Your task to perform on an android device: turn off location history Image 0: 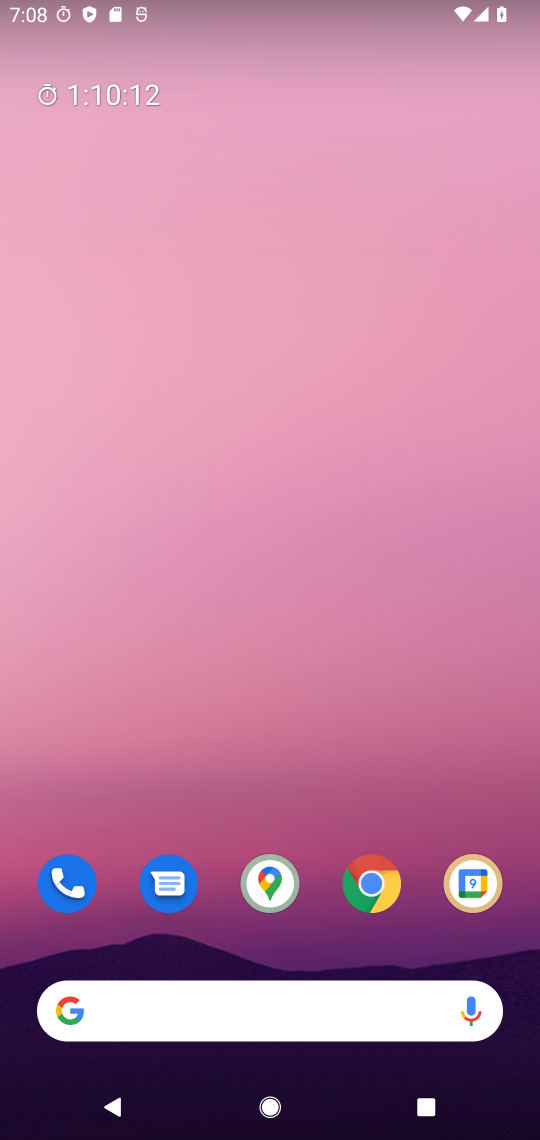
Step 0: drag from (282, 799) to (286, 269)
Your task to perform on an android device: turn off location history Image 1: 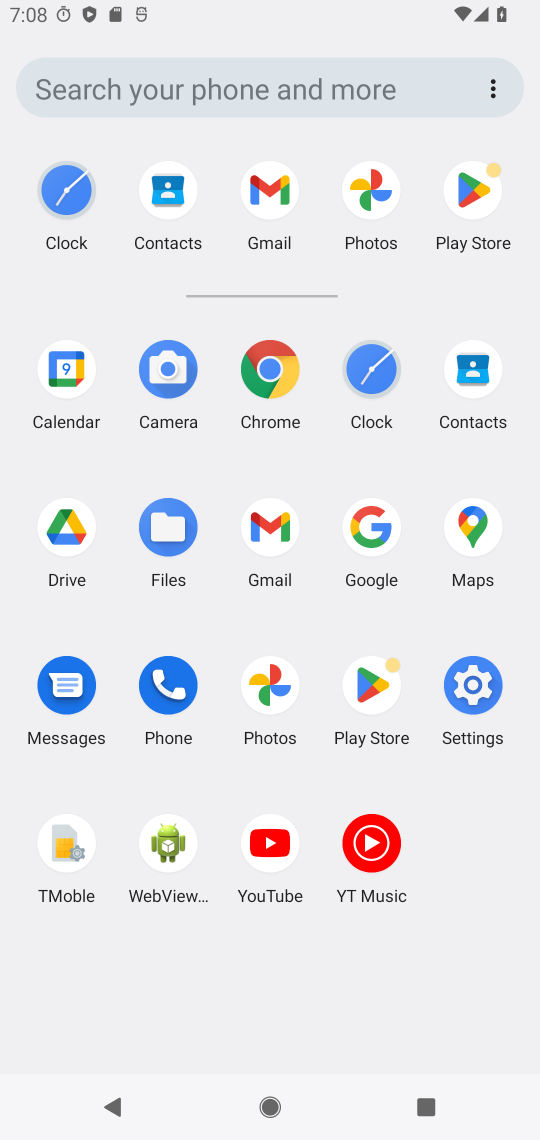
Step 1: click (458, 697)
Your task to perform on an android device: turn off location history Image 2: 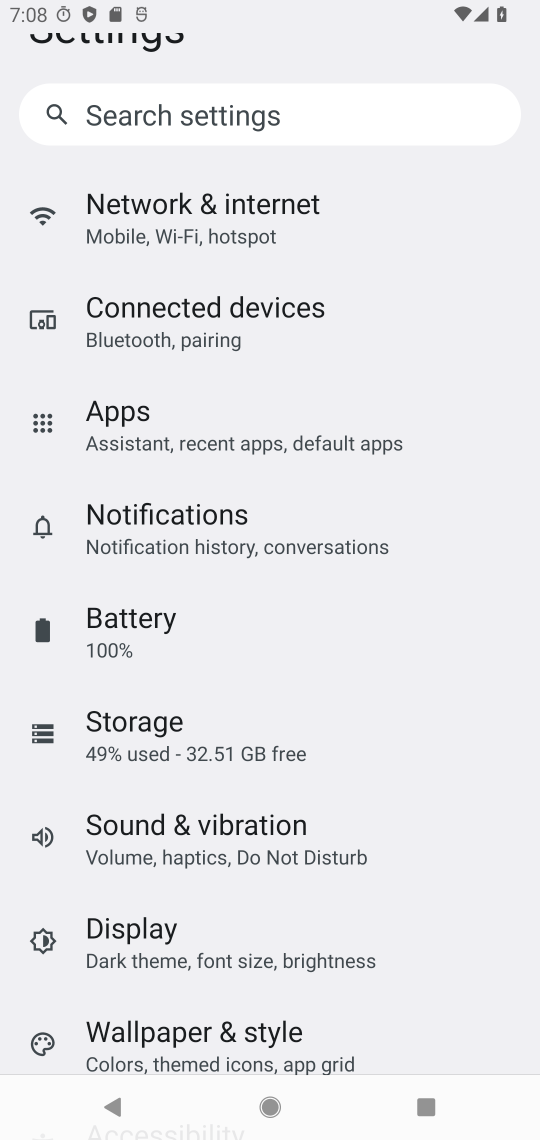
Step 2: drag from (244, 924) to (244, 367)
Your task to perform on an android device: turn off location history Image 3: 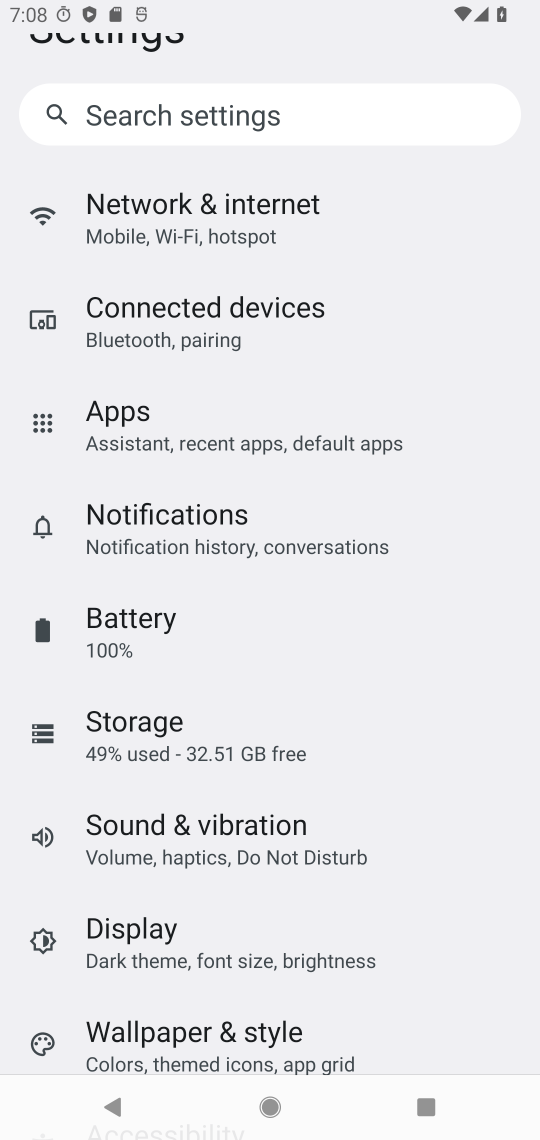
Step 3: drag from (254, 874) to (273, 344)
Your task to perform on an android device: turn off location history Image 4: 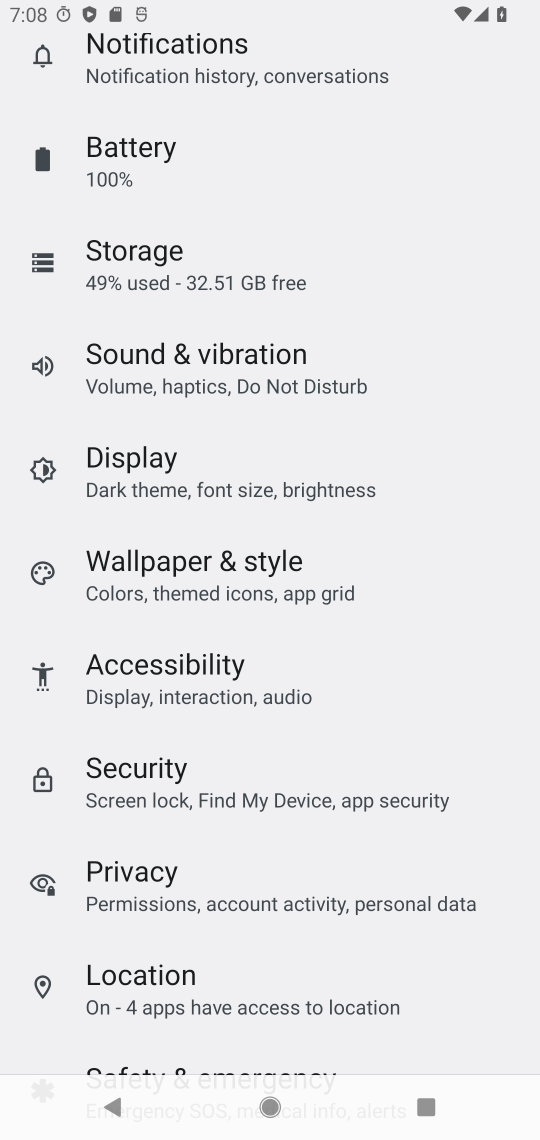
Step 4: click (211, 962)
Your task to perform on an android device: turn off location history Image 5: 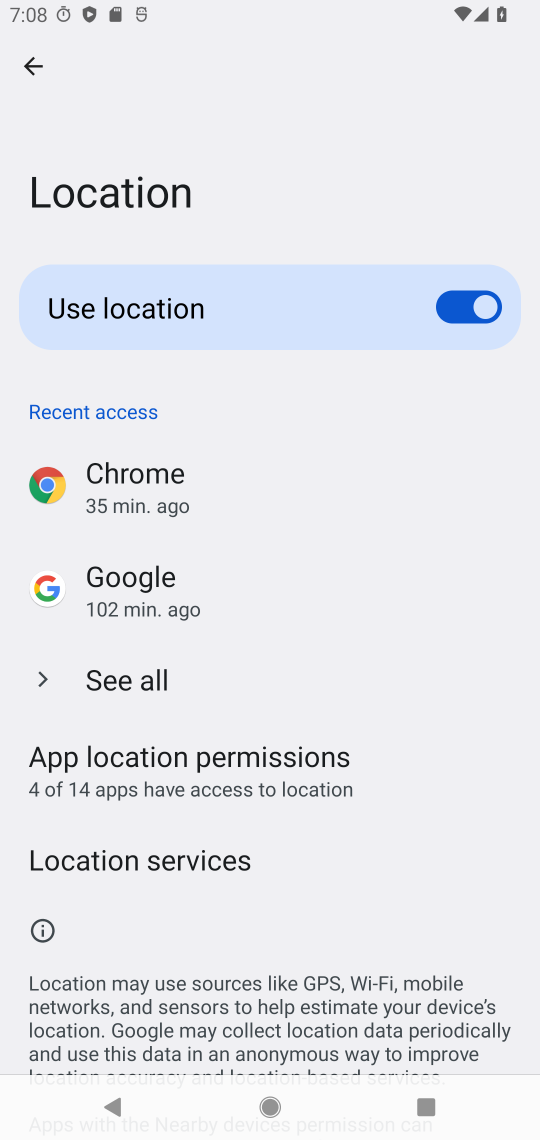
Step 5: drag from (248, 878) to (257, 426)
Your task to perform on an android device: turn off location history Image 6: 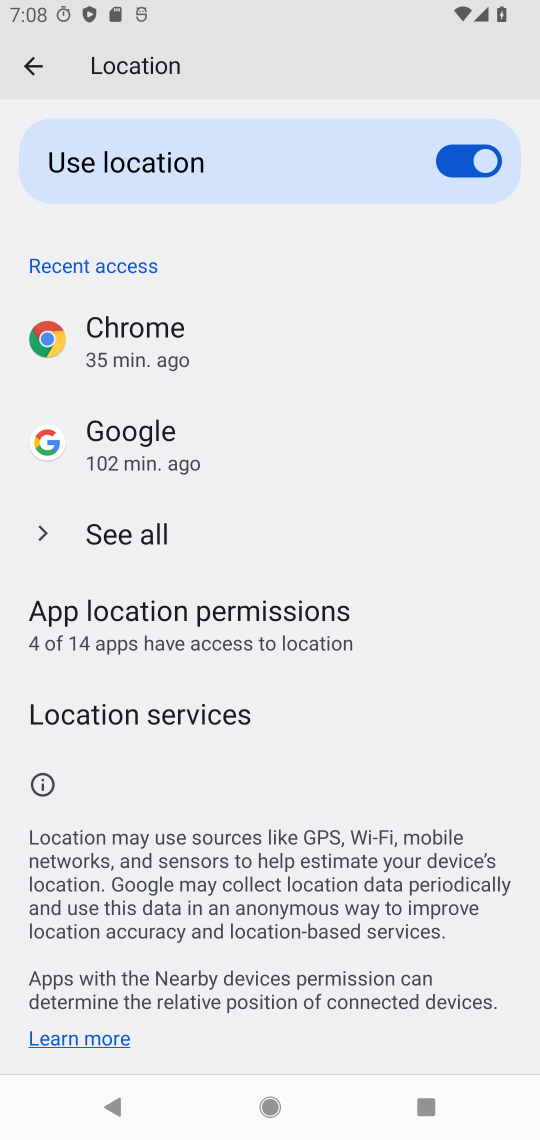
Step 6: click (235, 710)
Your task to perform on an android device: turn off location history Image 7: 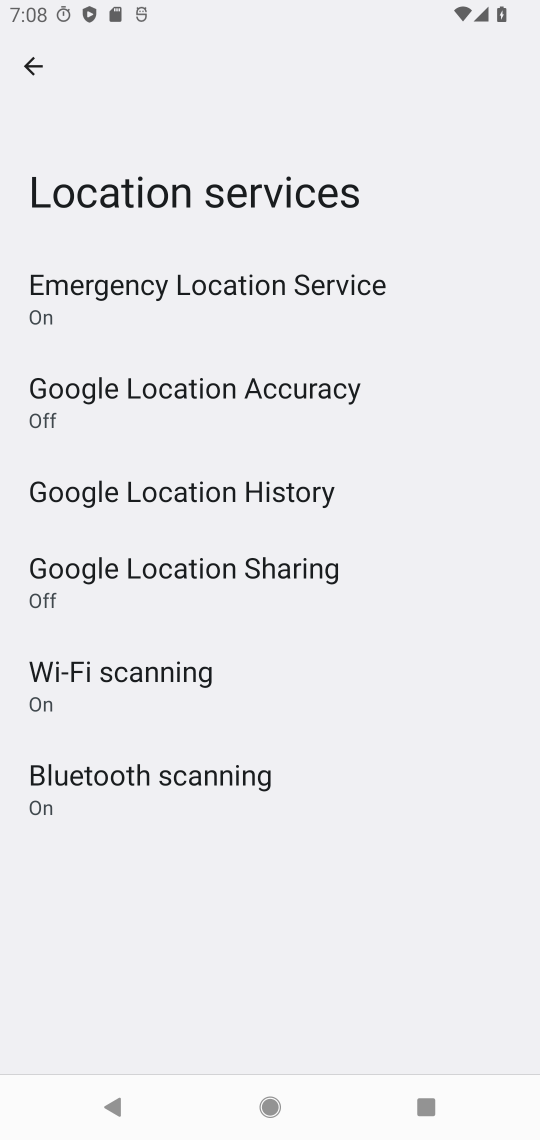
Step 7: click (283, 500)
Your task to perform on an android device: turn off location history Image 8: 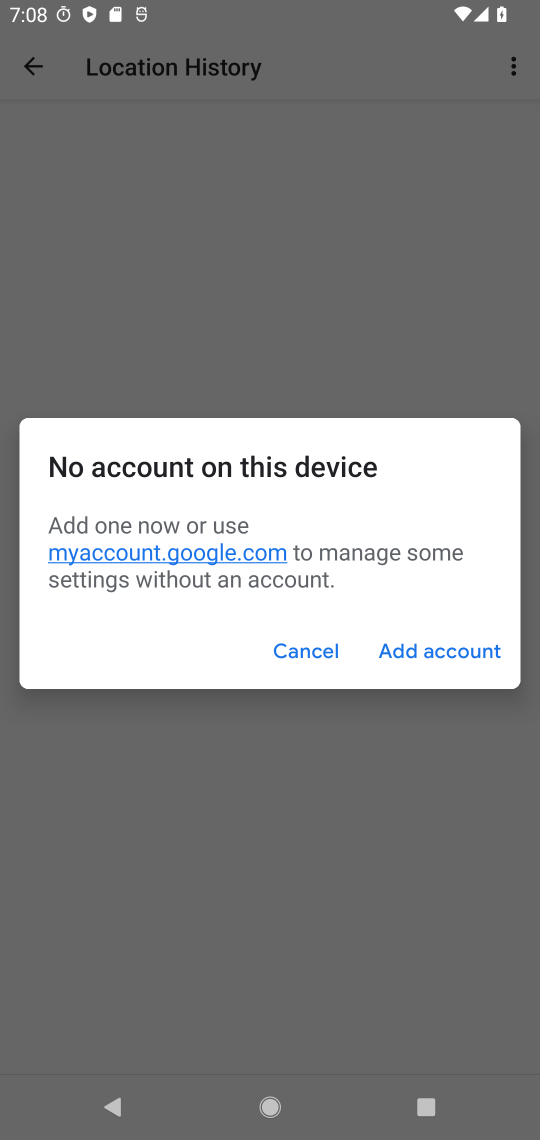
Step 8: task complete